Your task to perform on an android device: What's the weather? Image 0: 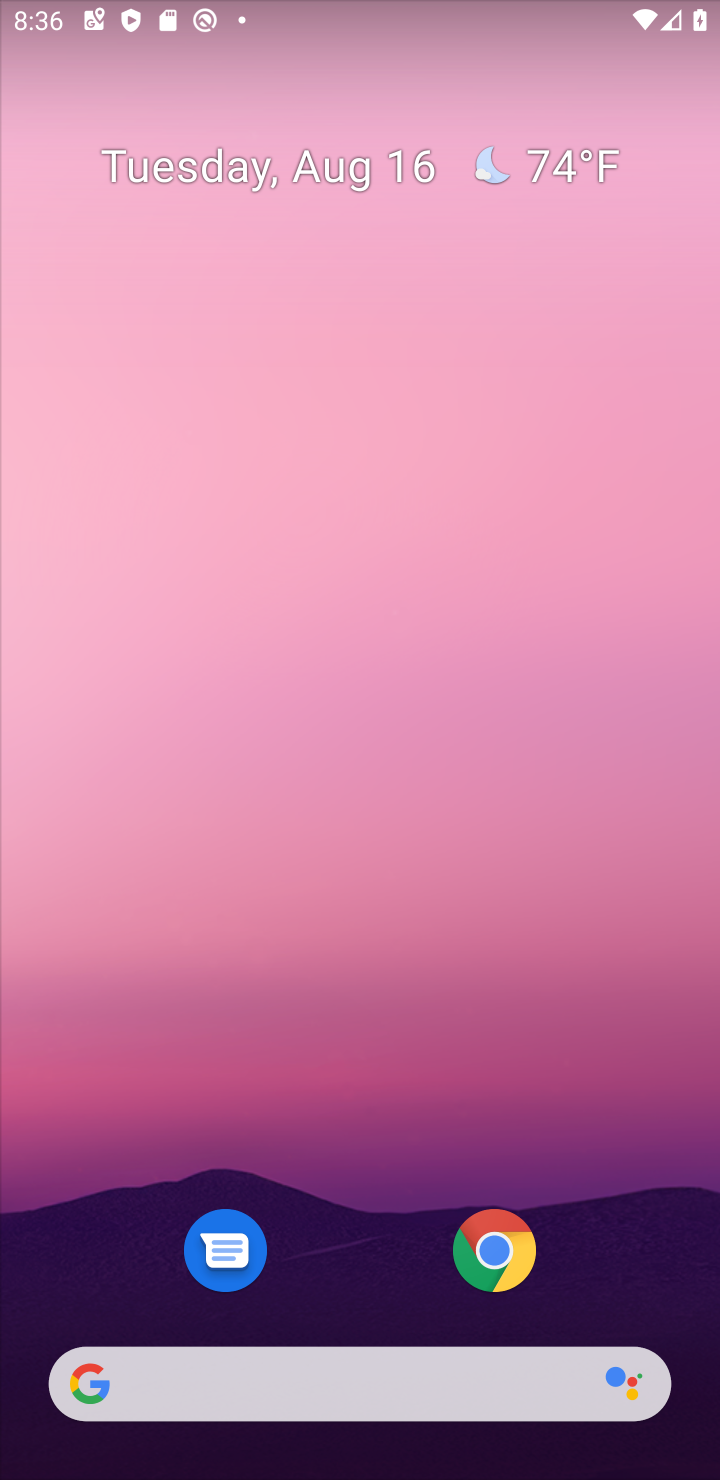
Step 0: click (610, 153)
Your task to perform on an android device: What's the weather? Image 1: 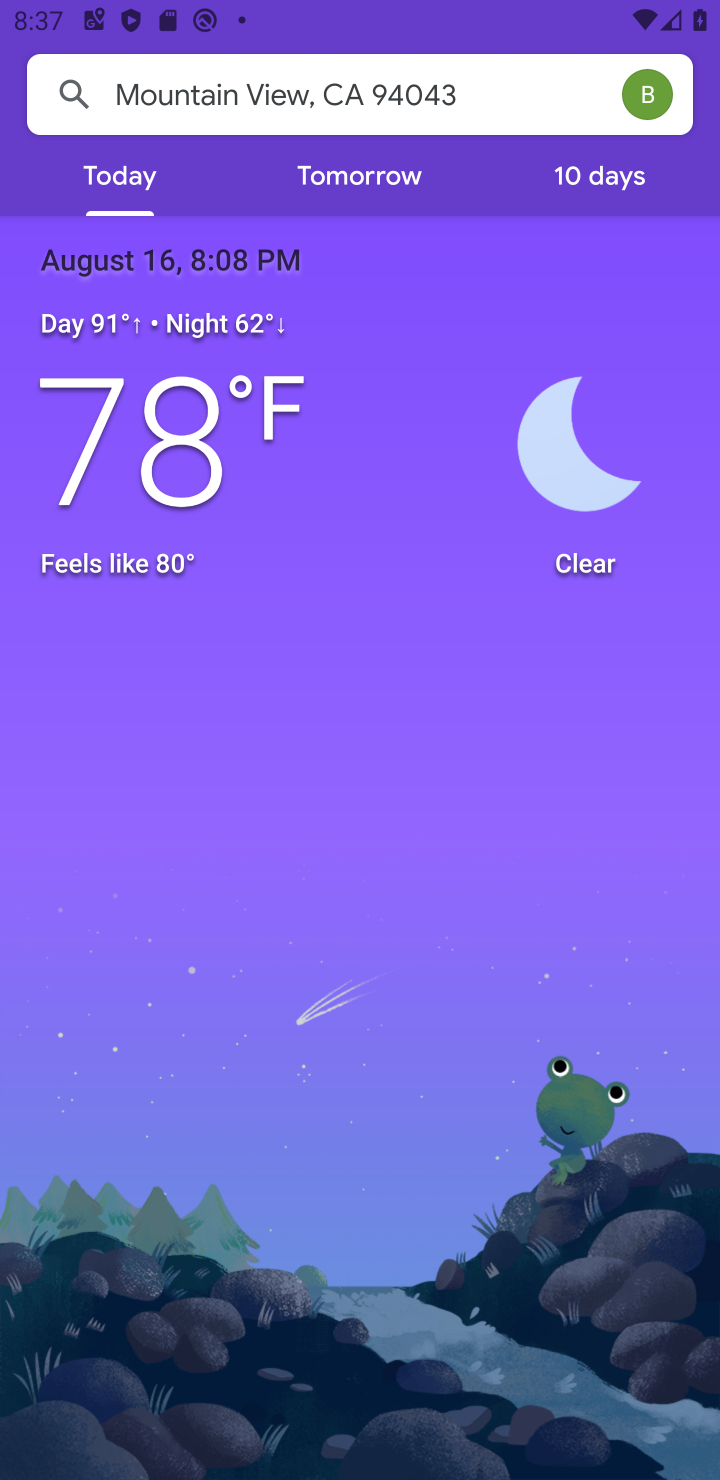
Step 1: task complete